Your task to perform on an android device: see sites visited before in the chrome app Image 0: 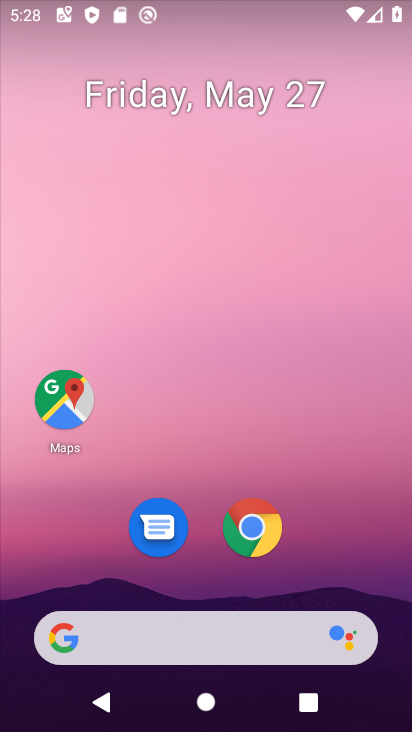
Step 0: click (263, 539)
Your task to perform on an android device: see sites visited before in the chrome app Image 1: 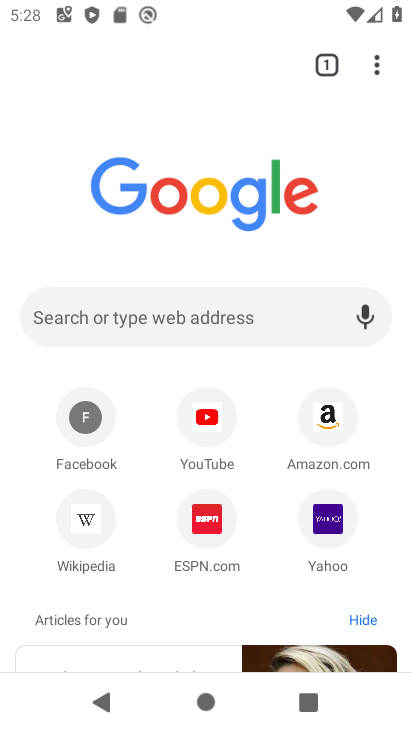
Step 1: click (380, 64)
Your task to perform on an android device: see sites visited before in the chrome app Image 2: 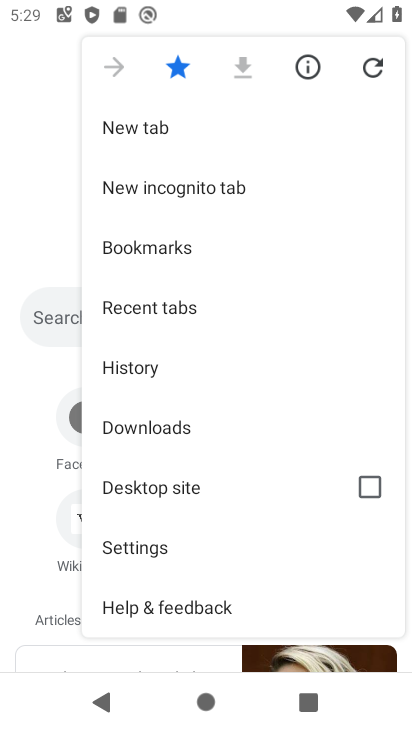
Step 2: click (153, 368)
Your task to perform on an android device: see sites visited before in the chrome app Image 3: 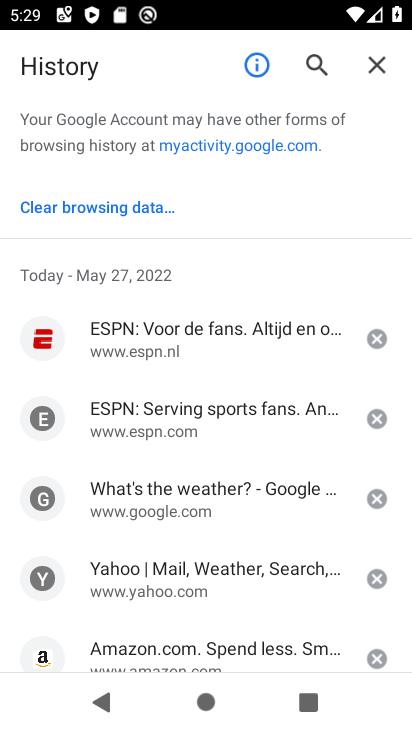
Step 3: task complete